Your task to perform on an android device: see tabs open on other devices in the chrome app Image 0: 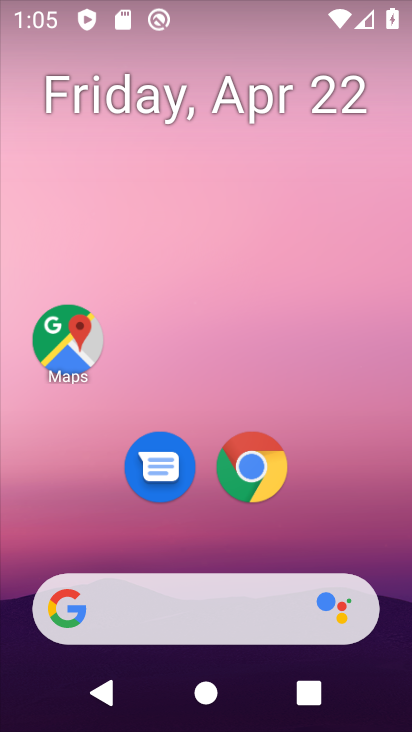
Step 0: drag from (213, 545) to (263, 64)
Your task to perform on an android device: see tabs open on other devices in the chrome app Image 1: 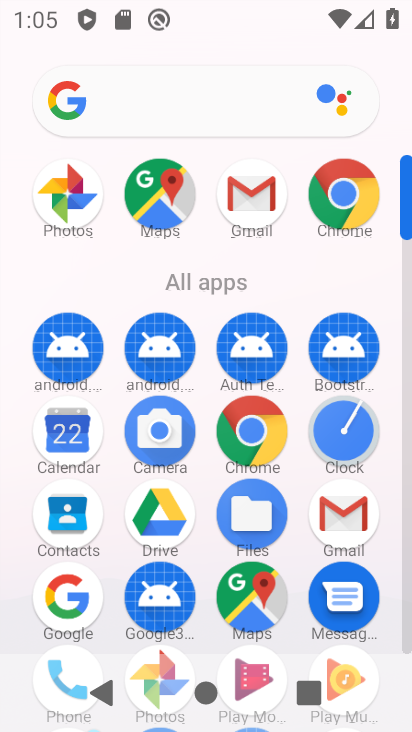
Step 1: click (245, 426)
Your task to perform on an android device: see tabs open on other devices in the chrome app Image 2: 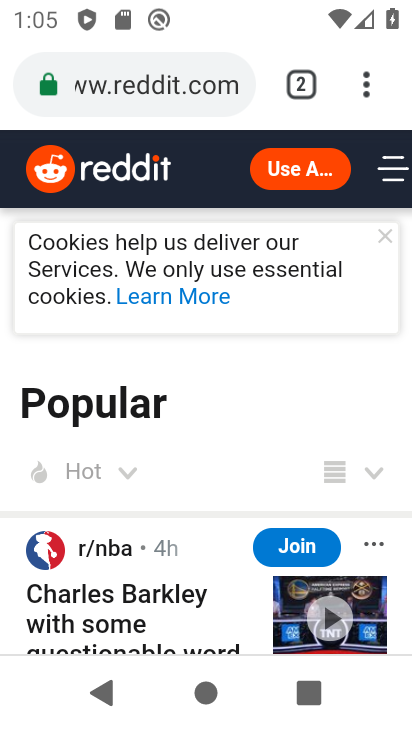
Step 2: click (300, 78)
Your task to perform on an android device: see tabs open on other devices in the chrome app Image 3: 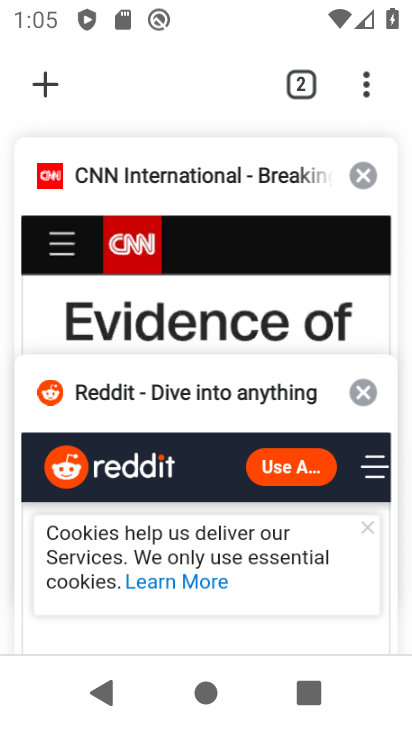
Step 3: click (364, 168)
Your task to perform on an android device: see tabs open on other devices in the chrome app Image 4: 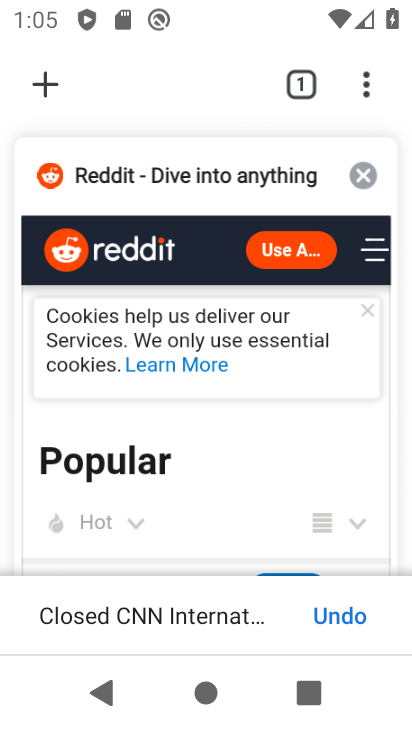
Step 4: click (360, 171)
Your task to perform on an android device: see tabs open on other devices in the chrome app Image 5: 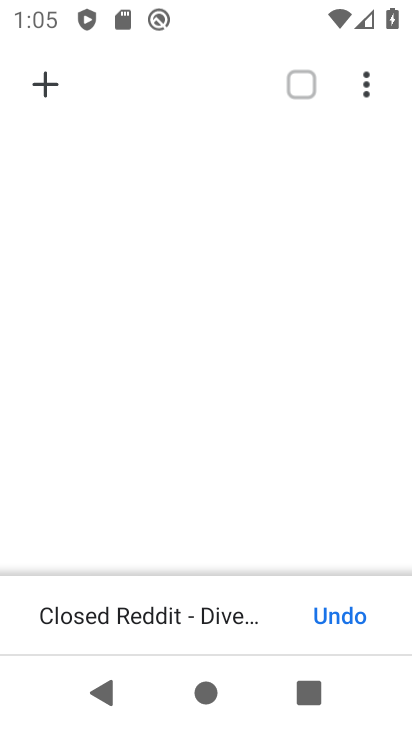
Step 5: click (53, 84)
Your task to perform on an android device: see tabs open on other devices in the chrome app Image 6: 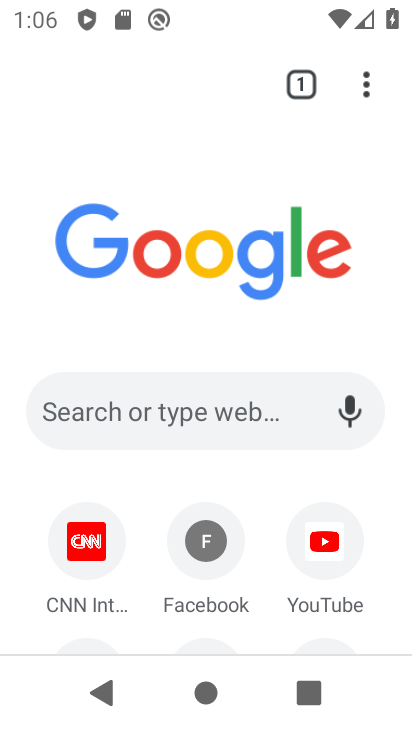
Step 6: click (369, 76)
Your task to perform on an android device: see tabs open on other devices in the chrome app Image 7: 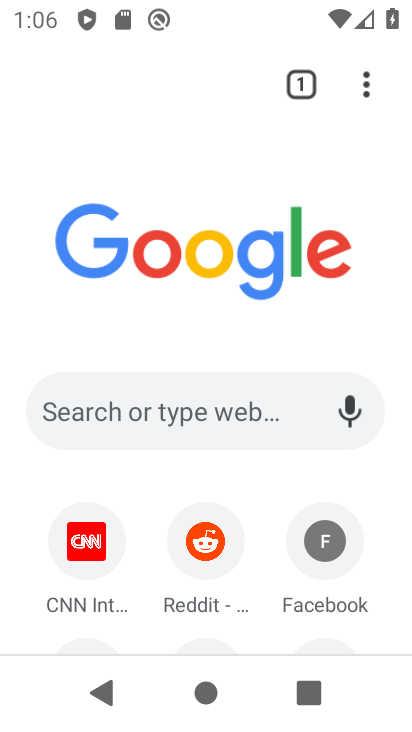
Step 7: click (365, 82)
Your task to perform on an android device: see tabs open on other devices in the chrome app Image 8: 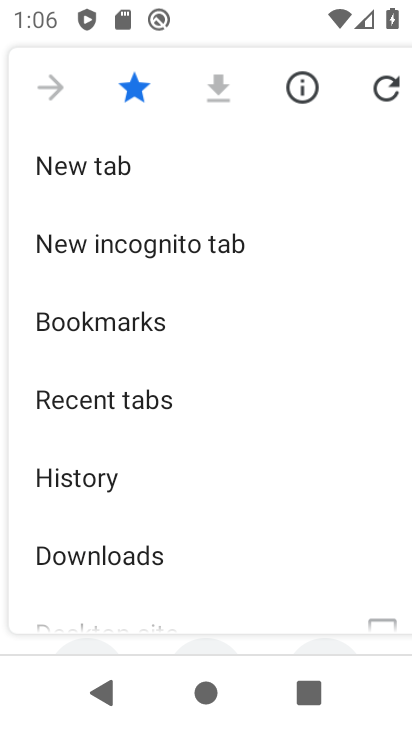
Step 8: click (178, 399)
Your task to perform on an android device: see tabs open on other devices in the chrome app Image 9: 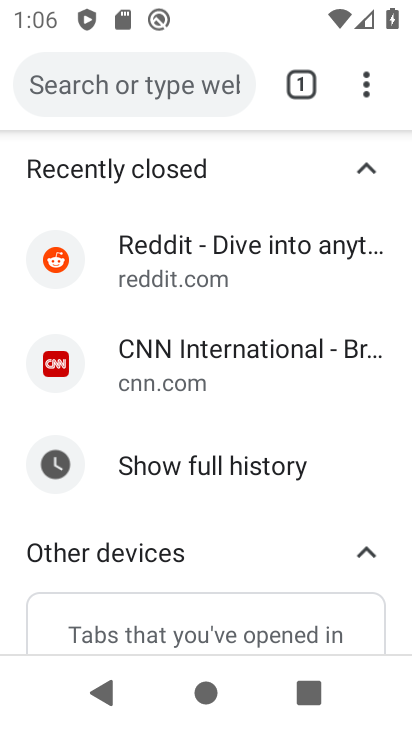
Step 9: task complete